Your task to perform on an android device: Open ESPN.com Image 0: 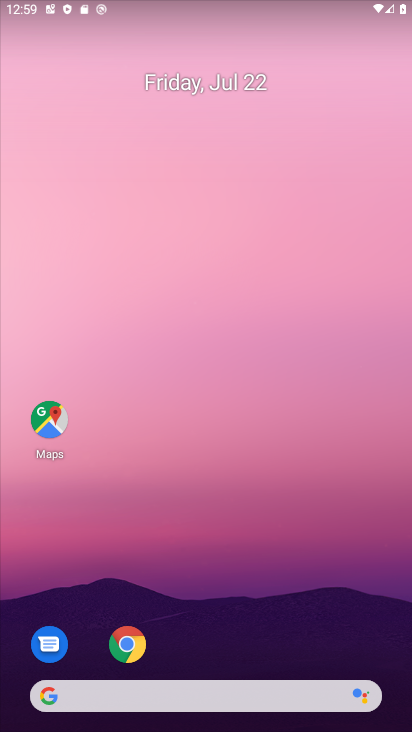
Step 0: press home button
Your task to perform on an android device: Open ESPN.com Image 1: 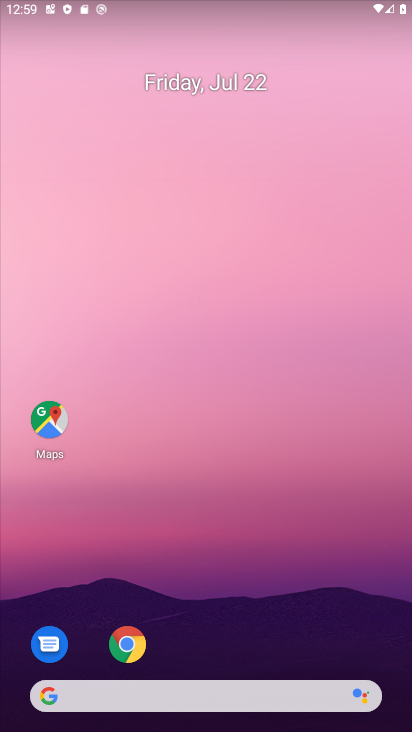
Step 1: click (126, 640)
Your task to perform on an android device: Open ESPN.com Image 2: 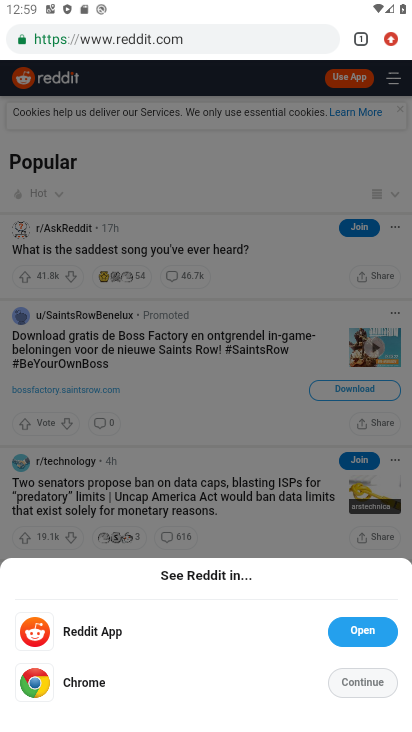
Step 2: click (374, 679)
Your task to perform on an android device: Open ESPN.com Image 3: 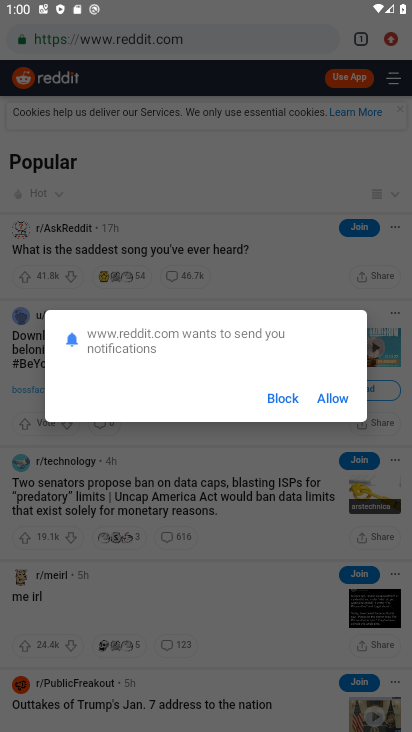
Step 3: click (343, 404)
Your task to perform on an android device: Open ESPN.com Image 4: 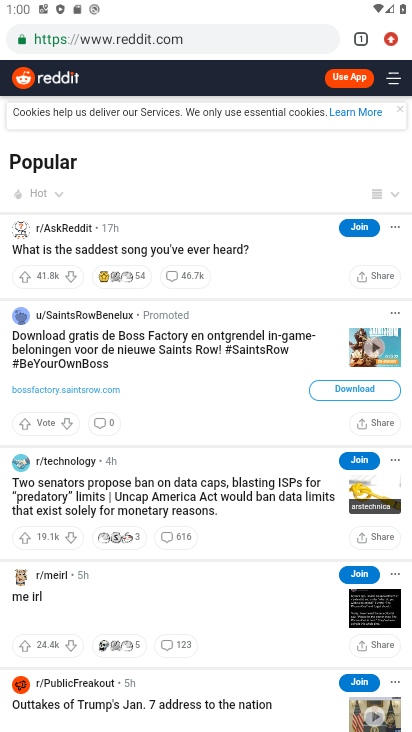
Step 4: click (352, 32)
Your task to perform on an android device: Open ESPN.com Image 5: 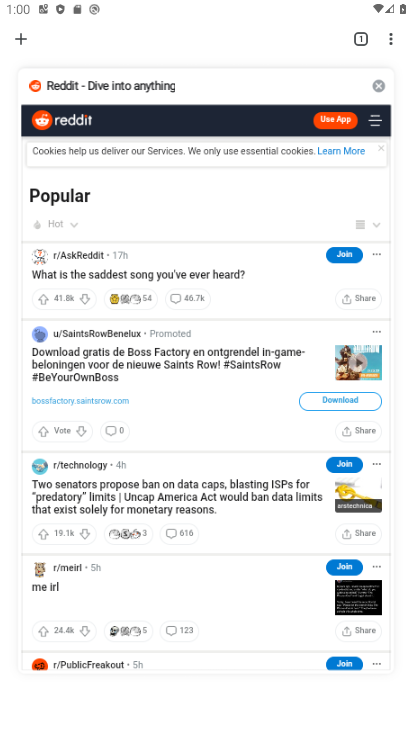
Step 5: click (34, 36)
Your task to perform on an android device: Open ESPN.com Image 6: 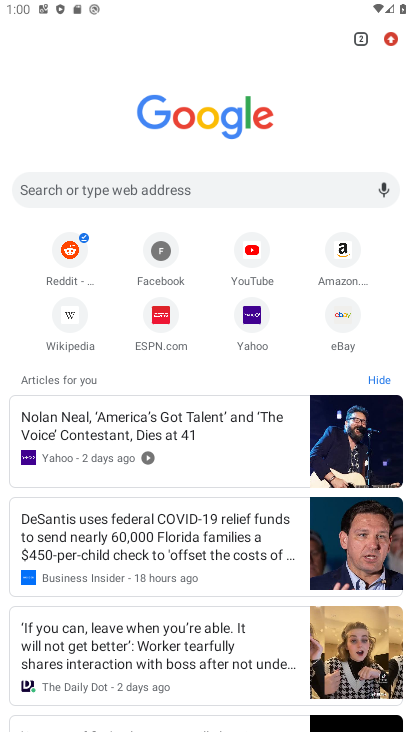
Step 6: click (161, 307)
Your task to perform on an android device: Open ESPN.com Image 7: 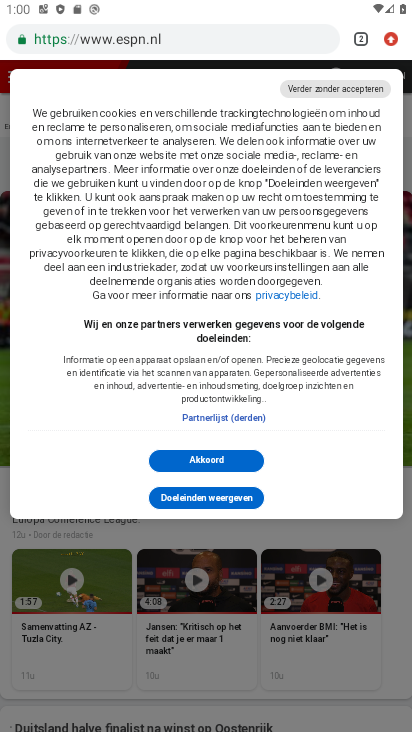
Step 7: click (212, 449)
Your task to perform on an android device: Open ESPN.com Image 8: 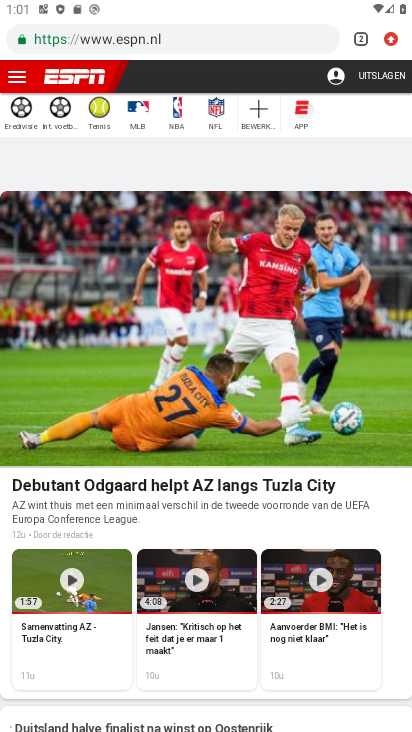
Step 8: task complete